Your task to perform on an android device: uninstall "Google Home" Image 0: 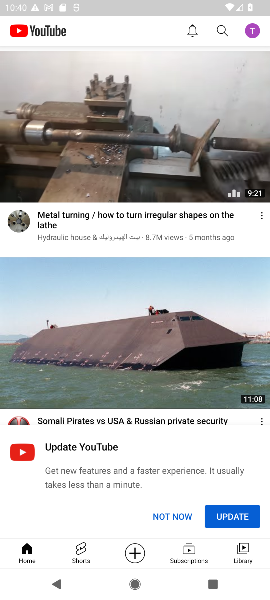
Step 0: press home button
Your task to perform on an android device: uninstall "Google Home" Image 1: 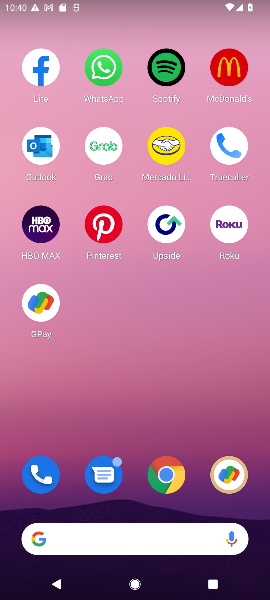
Step 1: drag from (130, 516) to (90, 85)
Your task to perform on an android device: uninstall "Google Home" Image 2: 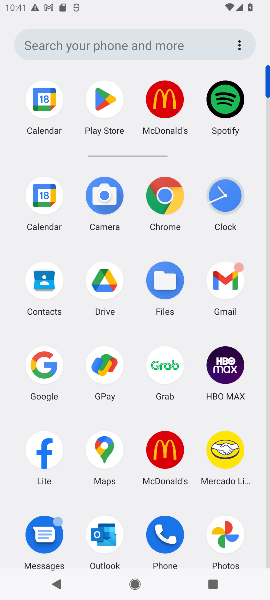
Step 2: click (111, 112)
Your task to perform on an android device: uninstall "Google Home" Image 3: 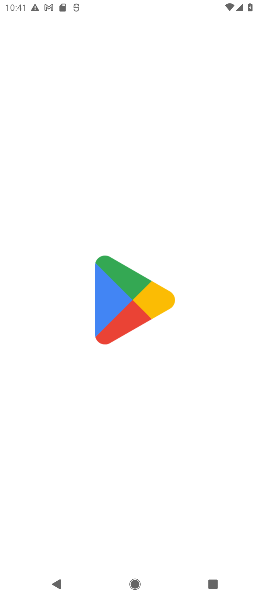
Step 3: task complete